Your task to perform on an android device: turn off translation in the chrome app Image 0: 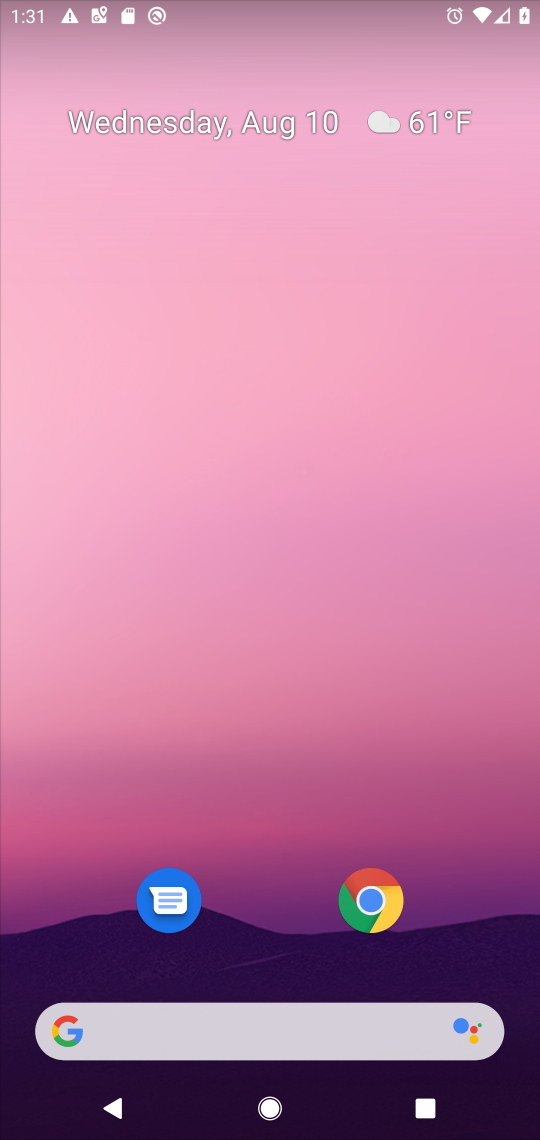
Step 0: click (373, 898)
Your task to perform on an android device: turn off translation in the chrome app Image 1: 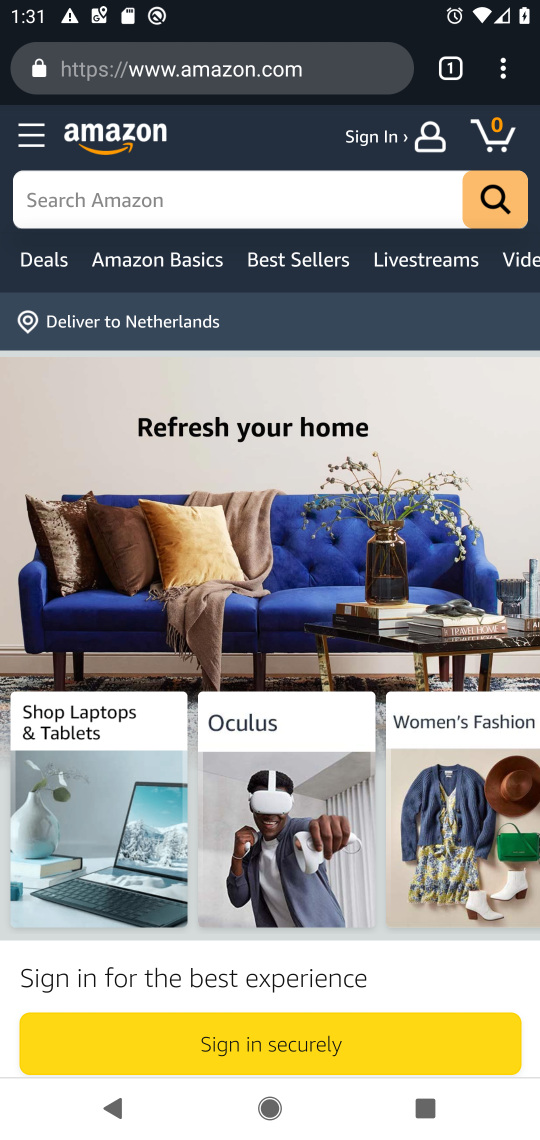
Step 1: click (502, 73)
Your task to perform on an android device: turn off translation in the chrome app Image 2: 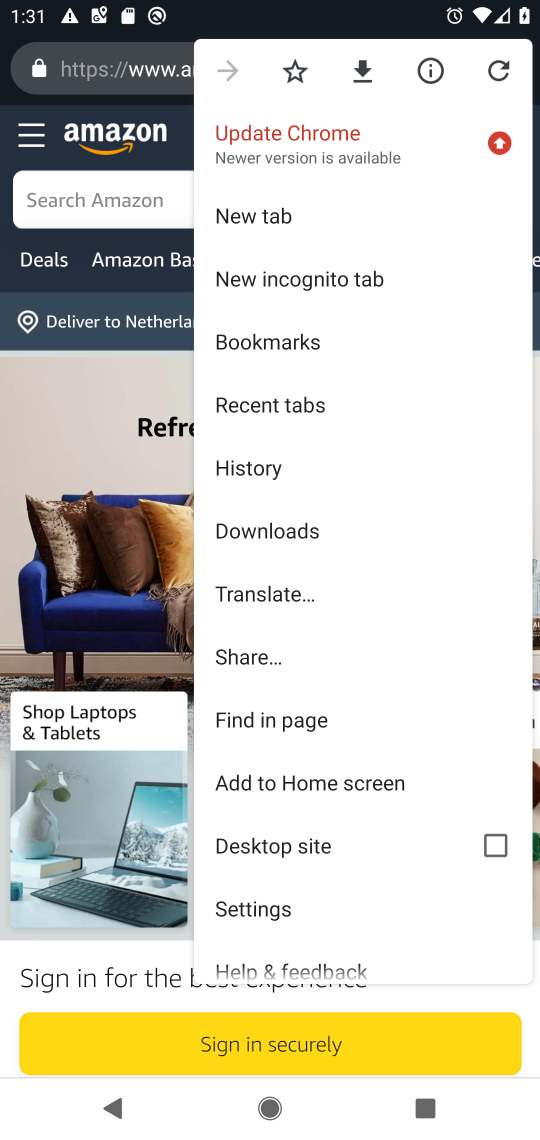
Step 2: click (279, 909)
Your task to perform on an android device: turn off translation in the chrome app Image 3: 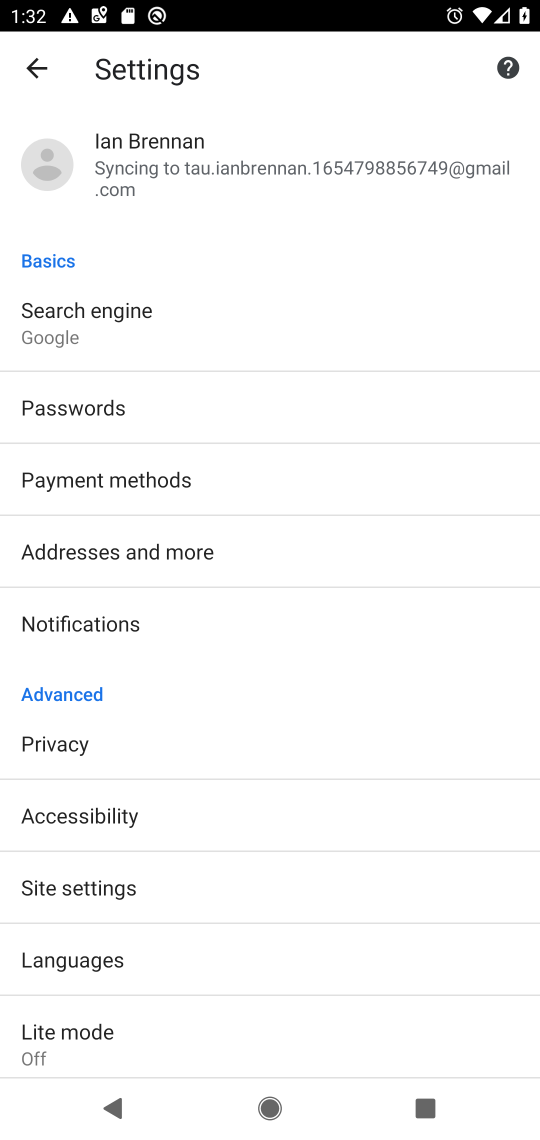
Step 3: click (221, 948)
Your task to perform on an android device: turn off translation in the chrome app Image 4: 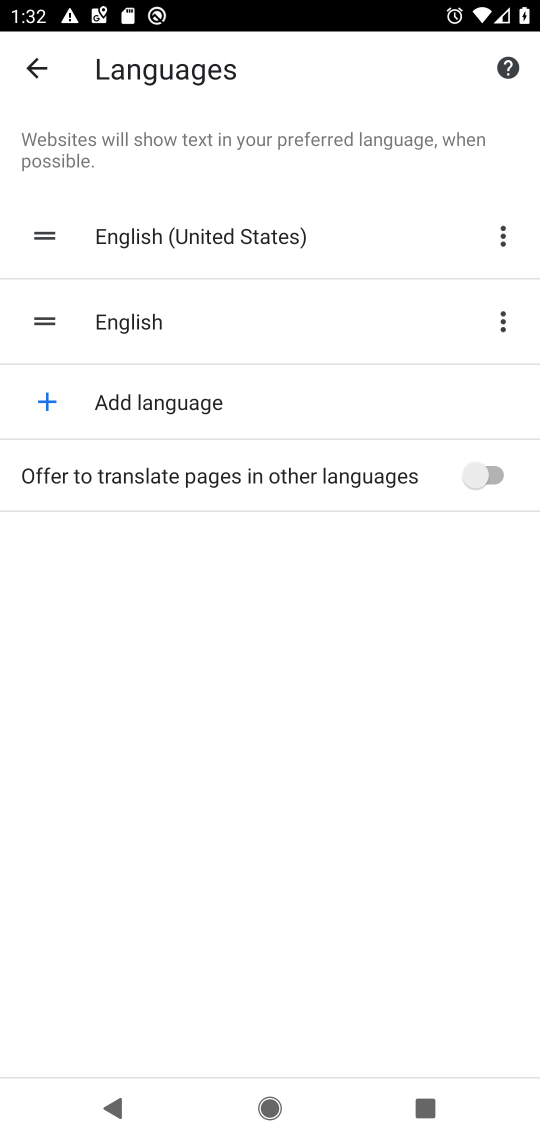
Step 4: task complete